Your task to perform on an android device: Go to battery settings Image 0: 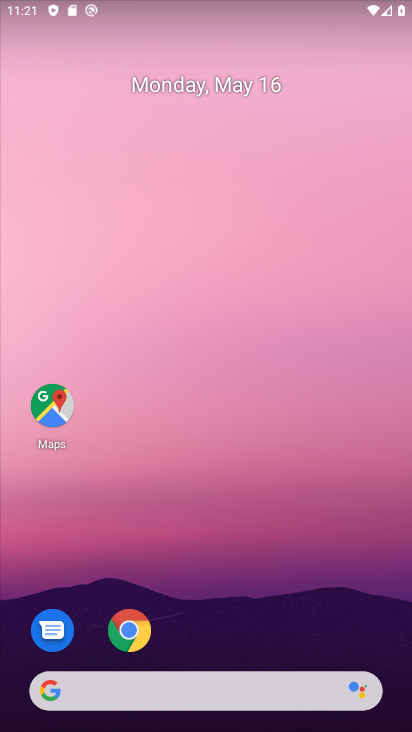
Step 0: drag from (260, 654) to (289, 190)
Your task to perform on an android device: Go to battery settings Image 1: 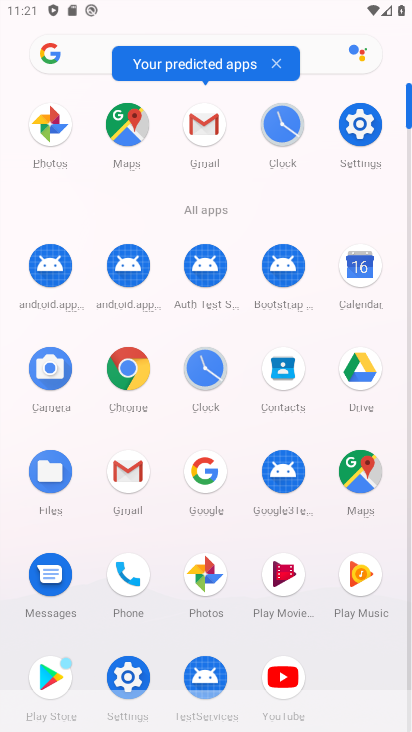
Step 1: click (117, 675)
Your task to perform on an android device: Go to battery settings Image 2: 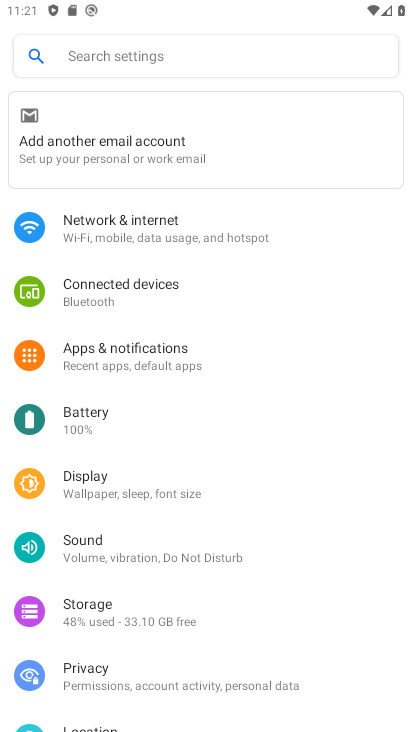
Step 2: drag from (128, 648) to (220, 356)
Your task to perform on an android device: Go to battery settings Image 3: 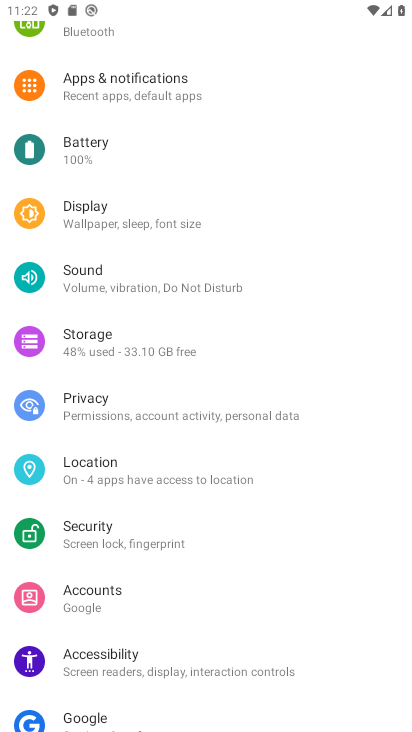
Step 3: click (131, 151)
Your task to perform on an android device: Go to battery settings Image 4: 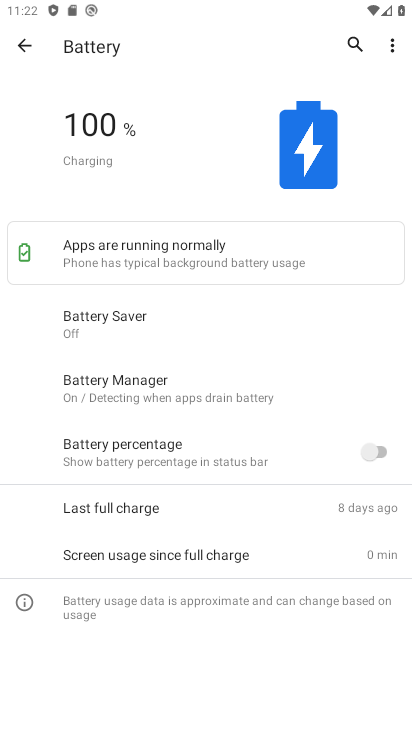
Step 4: task complete